Your task to perform on an android device: snooze an email in the gmail app Image 0: 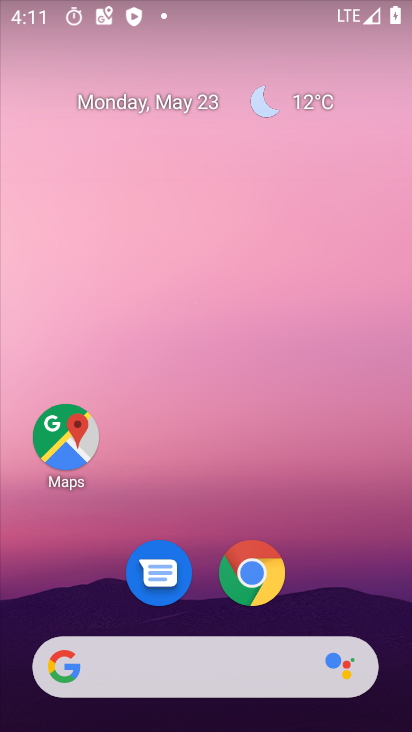
Step 0: drag from (1, 632) to (335, 115)
Your task to perform on an android device: snooze an email in the gmail app Image 1: 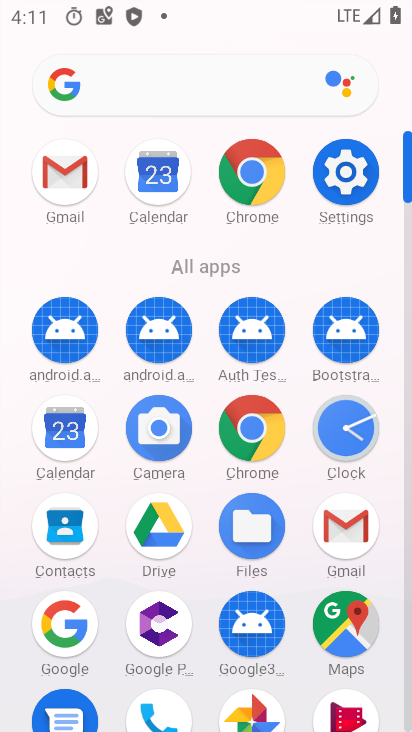
Step 1: click (361, 531)
Your task to perform on an android device: snooze an email in the gmail app Image 2: 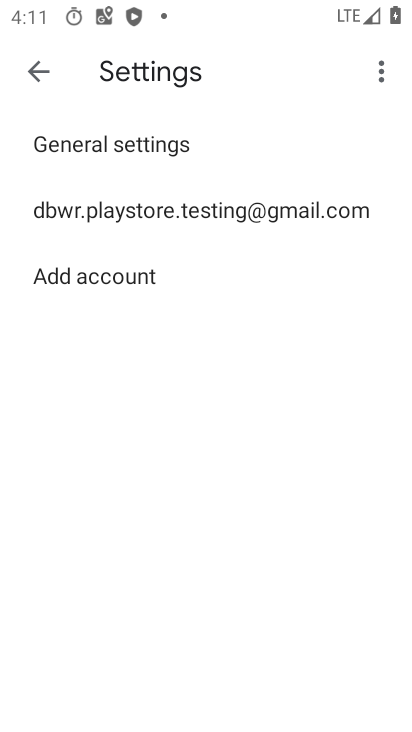
Step 2: click (88, 211)
Your task to perform on an android device: snooze an email in the gmail app Image 3: 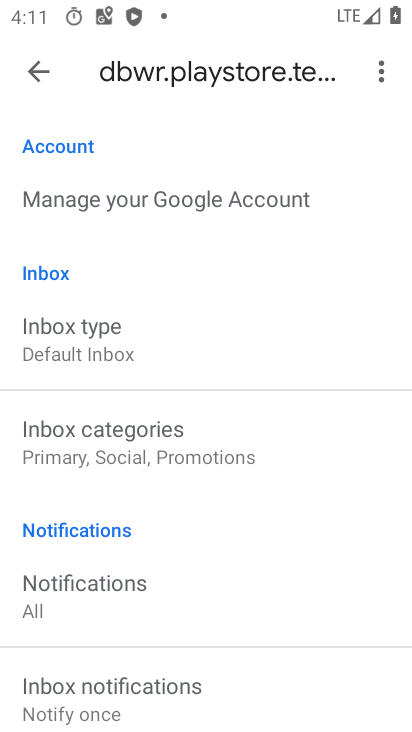
Step 3: drag from (28, 670) to (283, 194)
Your task to perform on an android device: snooze an email in the gmail app Image 4: 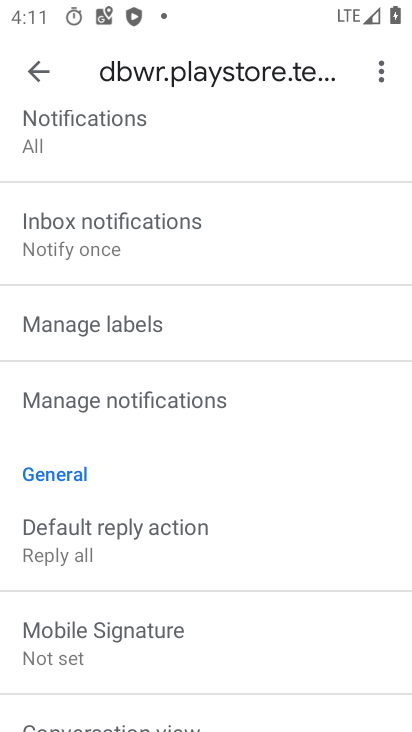
Step 4: drag from (61, 710) to (330, 179)
Your task to perform on an android device: snooze an email in the gmail app Image 5: 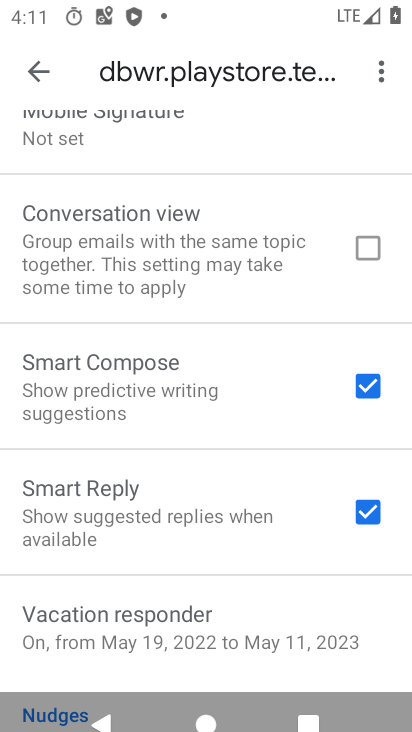
Step 5: drag from (0, 660) to (245, 301)
Your task to perform on an android device: snooze an email in the gmail app Image 6: 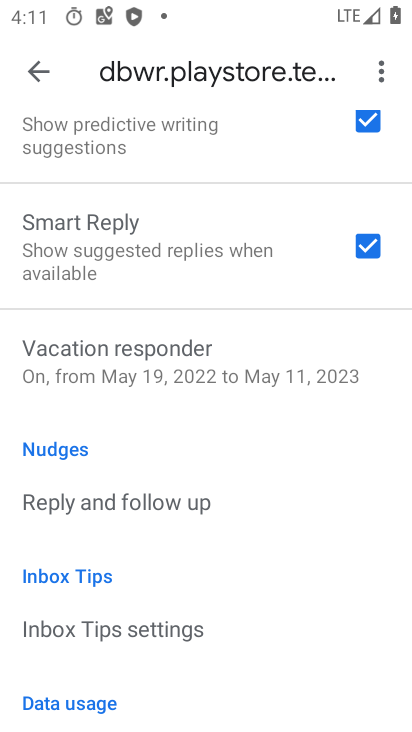
Step 6: press back button
Your task to perform on an android device: snooze an email in the gmail app Image 7: 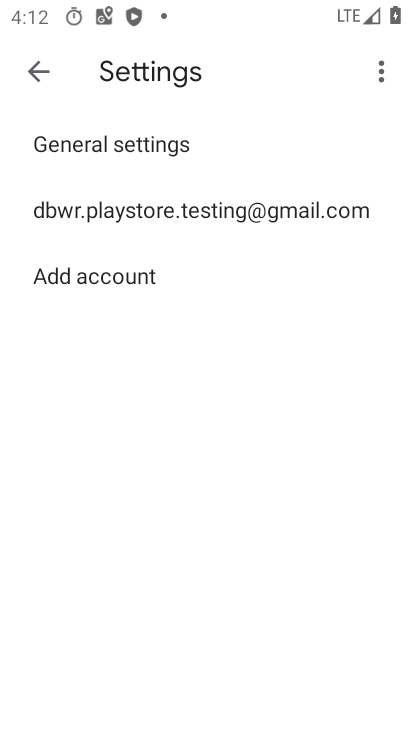
Step 7: press back button
Your task to perform on an android device: snooze an email in the gmail app Image 8: 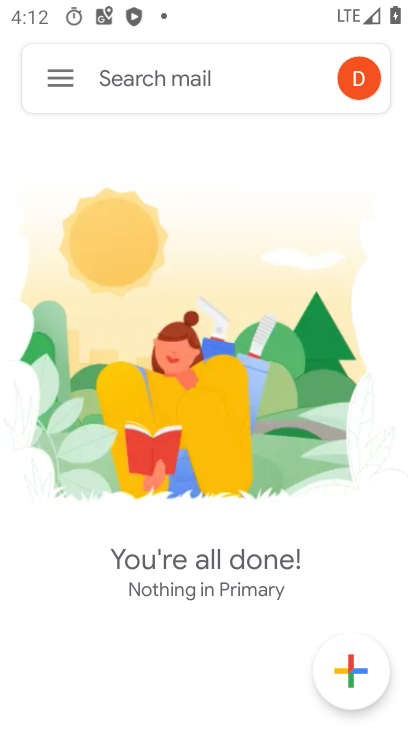
Step 8: click (61, 85)
Your task to perform on an android device: snooze an email in the gmail app Image 9: 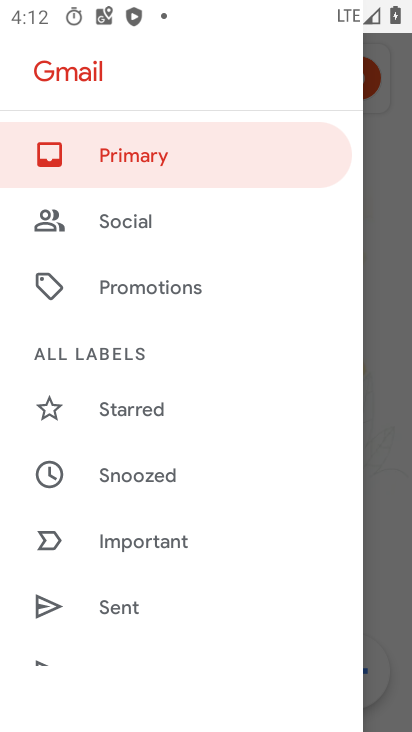
Step 9: drag from (133, 581) to (249, 237)
Your task to perform on an android device: snooze an email in the gmail app Image 10: 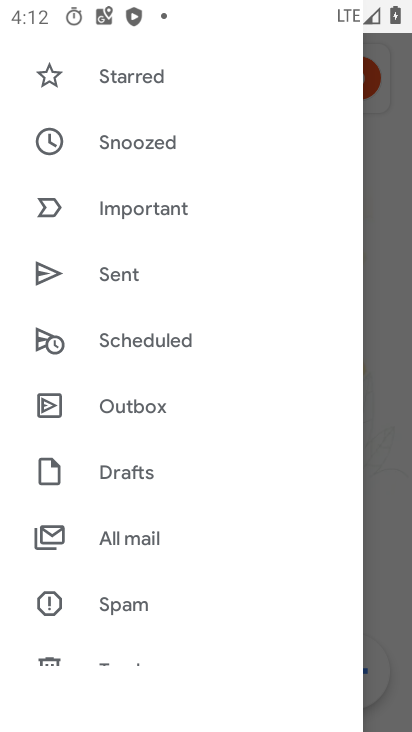
Step 10: click (92, 533)
Your task to perform on an android device: snooze an email in the gmail app Image 11: 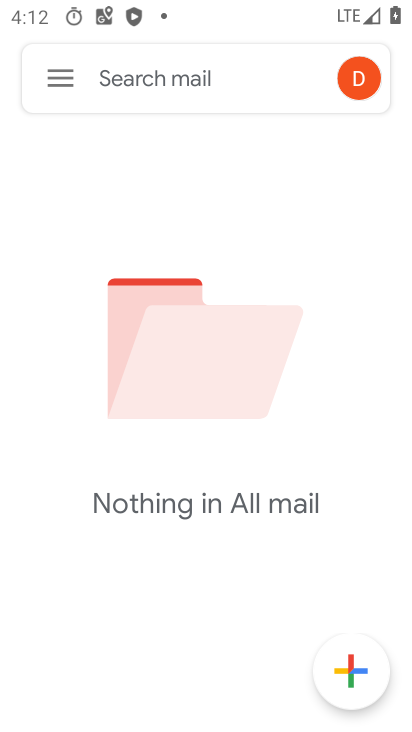
Step 11: task complete